Your task to perform on an android device: toggle priority inbox in the gmail app Image 0: 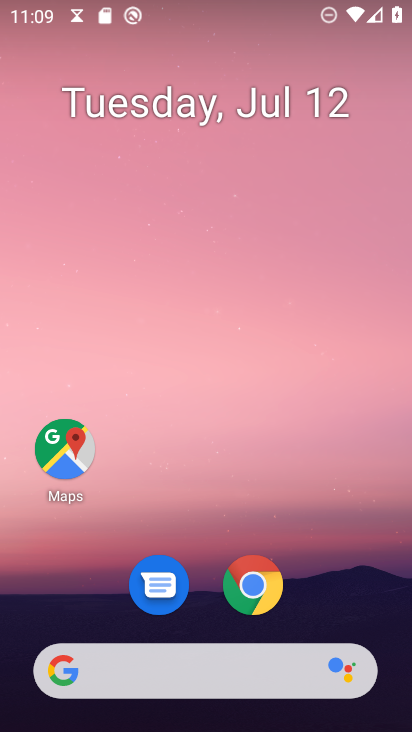
Step 0: drag from (170, 683) to (359, 124)
Your task to perform on an android device: toggle priority inbox in the gmail app Image 1: 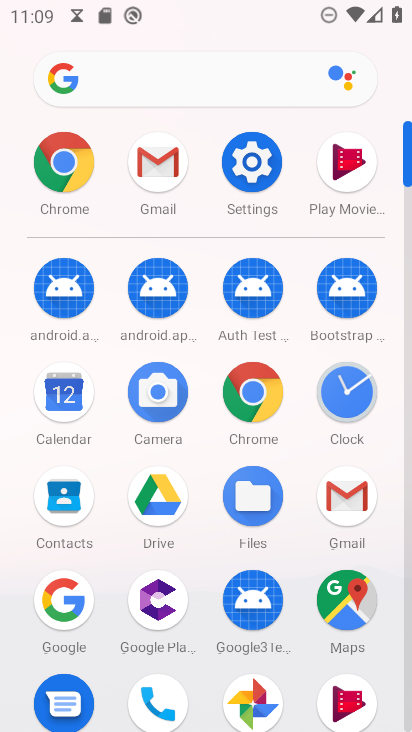
Step 1: click (162, 176)
Your task to perform on an android device: toggle priority inbox in the gmail app Image 2: 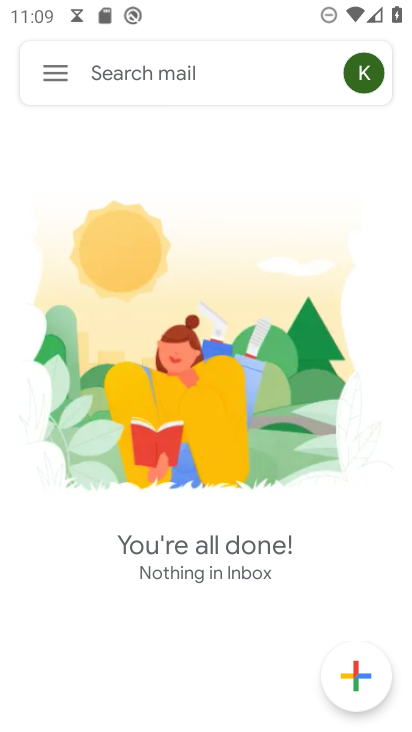
Step 2: click (53, 79)
Your task to perform on an android device: toggle priority inbox in the gmail app Image 3: 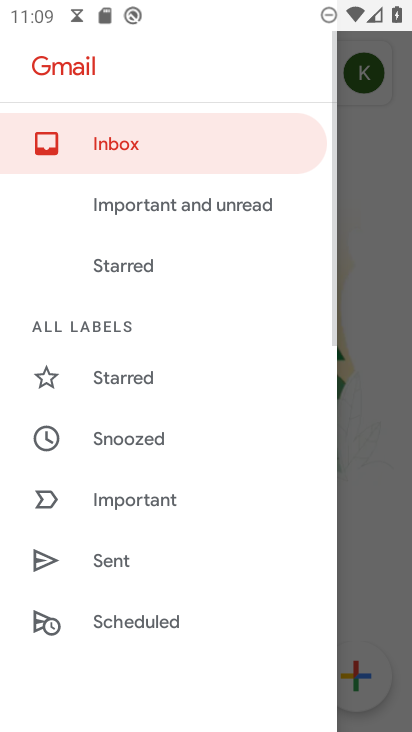
Step 3: drag from (168, 579) to (230, 117)
Your task to perform on an android device: toggle priority inbox in the gmail app Image 4: 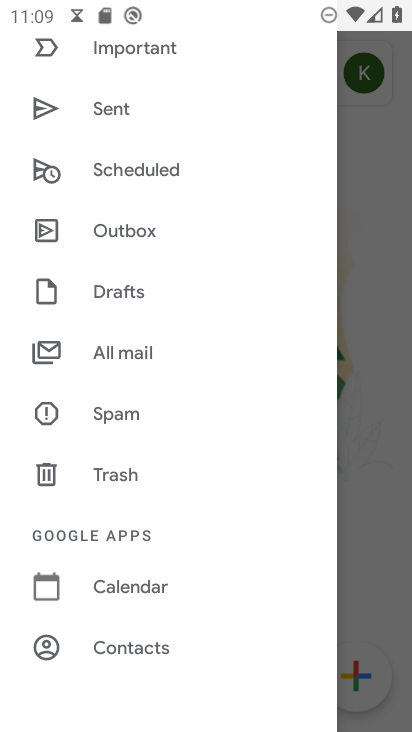
Step 4: drag from (174, 642) to (240, 175)
Your task to perform on an android device: toggle priority inbox in the gmail app Image 5: 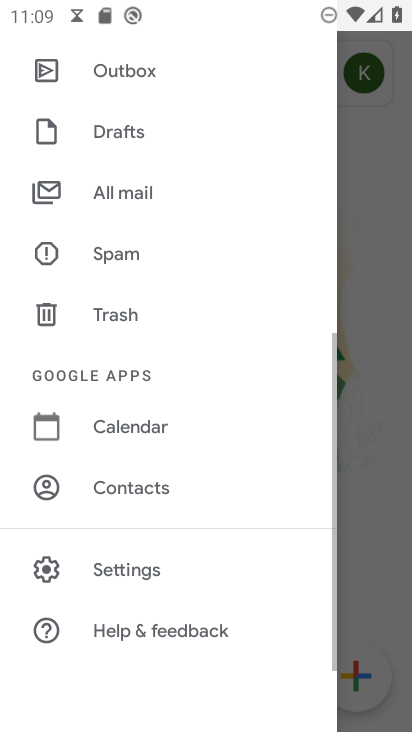
Step 5: click (118, 571)
Your task to perform on an android device: toggle priority inbox in the gmail app Image 6: 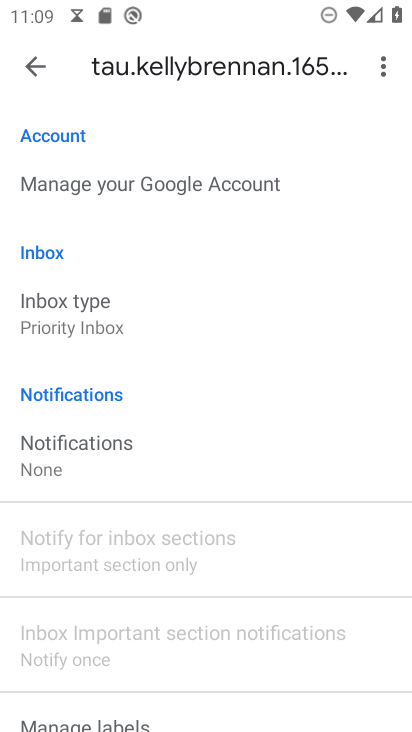
Step 6: click (92, 325)
Your task to perform on an android device: toggle priority inbox in the gmail app Image 7: 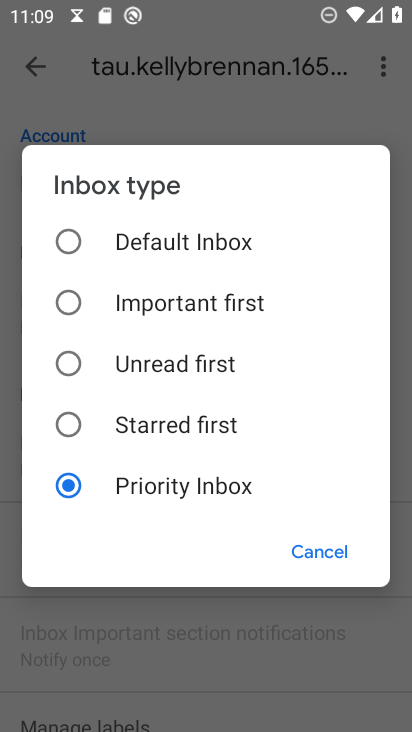
Step 7: click (63, 238)
Your task to perform on an android device: toggle priority inbox in the gmail app Image 8: 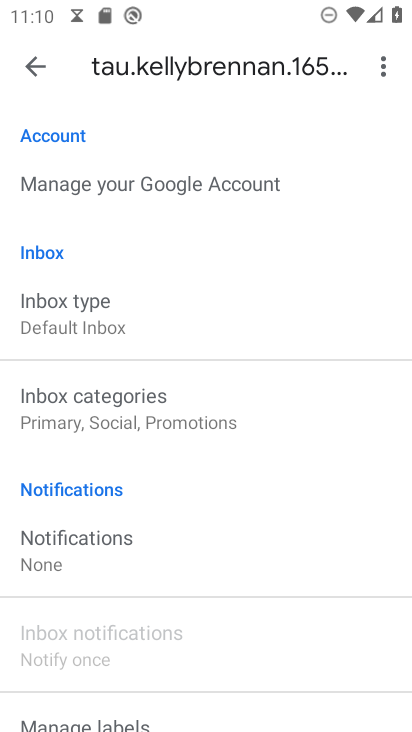
Step 8: task complete